Your task to perform on an android device: Go to Yahoo.com Image 0: 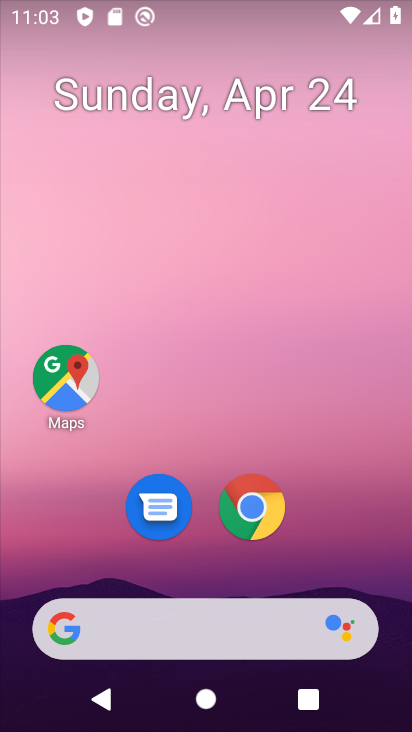
Step 0: click (252, 508)
Your task to perform on an android device: Go to Yahoo.com Image 1: 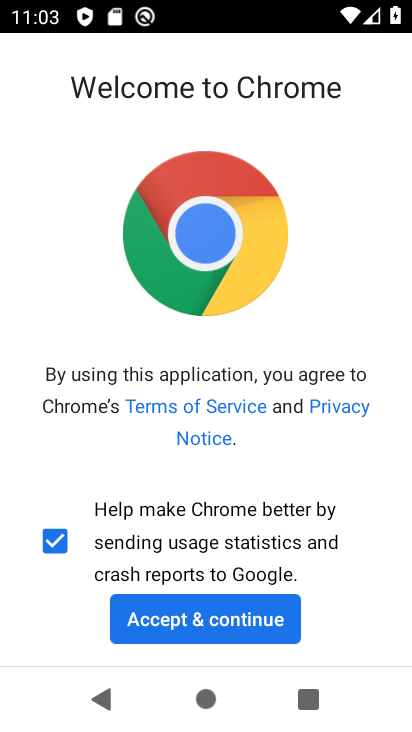
Step 1: click (224, 625)
Your task to perform on an android device: Go to Yahoo.com Image 2: 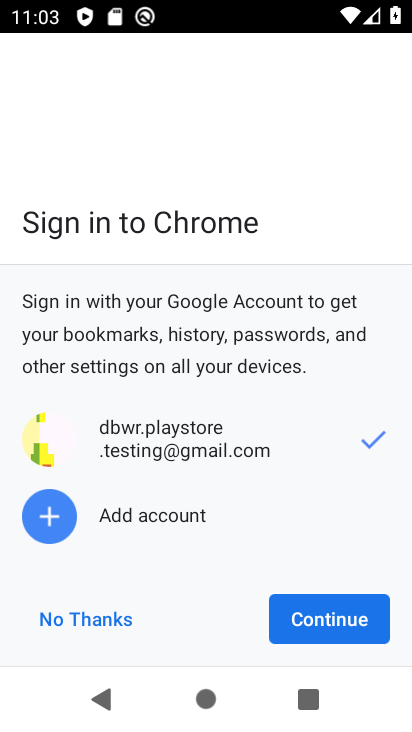
Step 2: click (331, 622)
Your task to perform on an android device: Go to Yahoo.com Image 3: 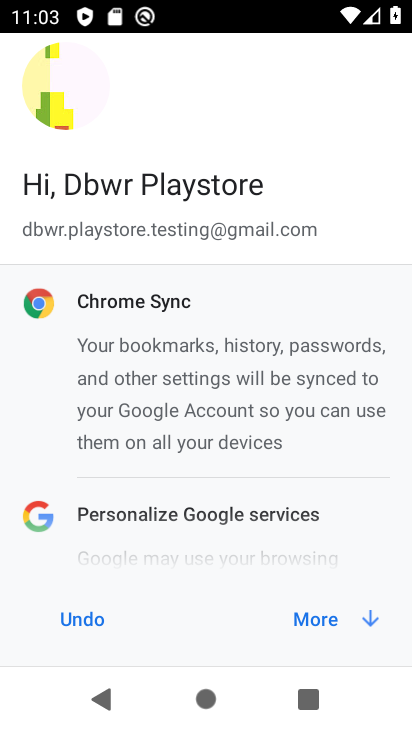
Step 3: click (331, 622)
Your task to perform on an android device: Go to Yahoo.com Image 4: 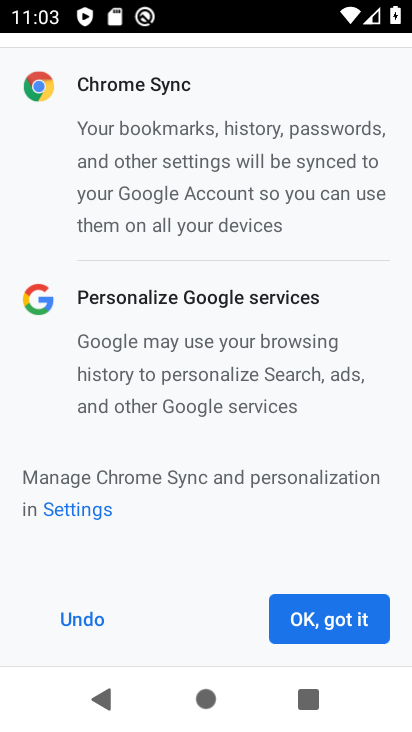
Step 4: click (331, 622)
Your task to perform on an android device: Go to Yahoo.com Image 5: 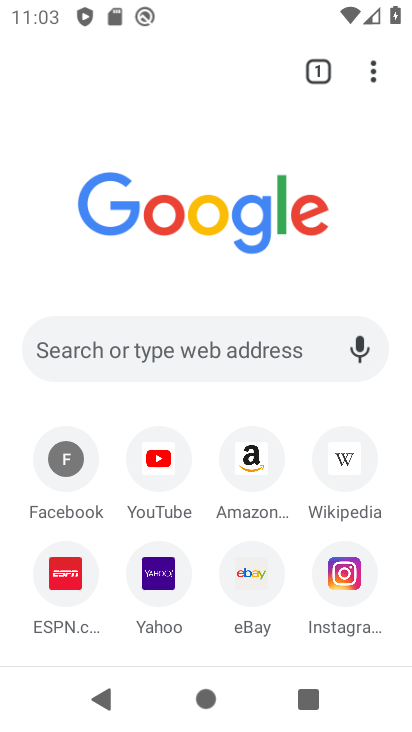
Step 5: click (225, 350)
Your task to perform on an android device: Go to Yahoo.com Image 6: 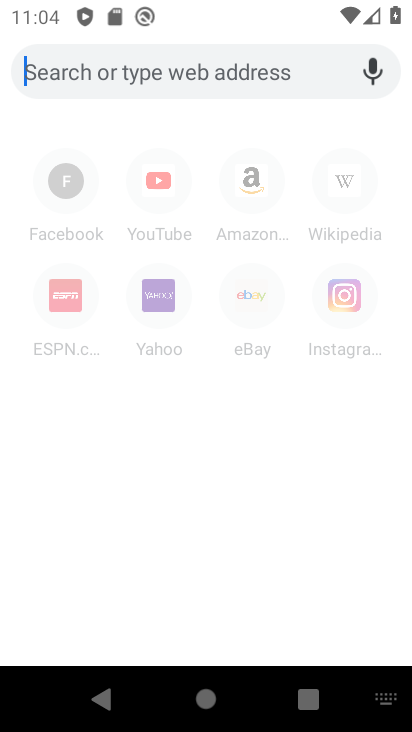
Step 6: type "Yahoo.com"
Your task to perform on an android device: Go to Yahoo.com Image 7: 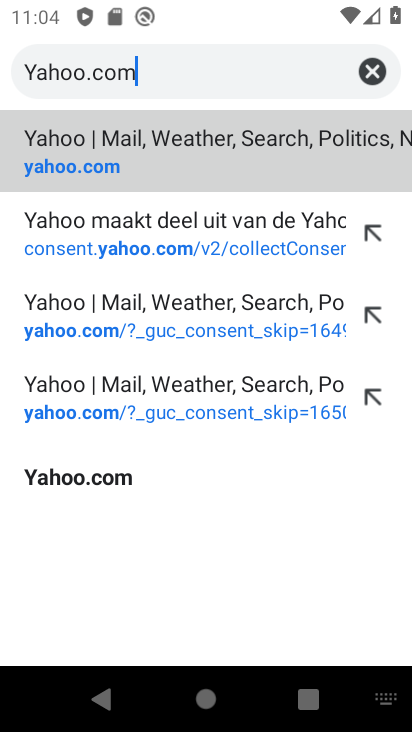
Step 7: click (126, 130)
Your task to perform on an android device: Go to Yahoo.com Image 8: 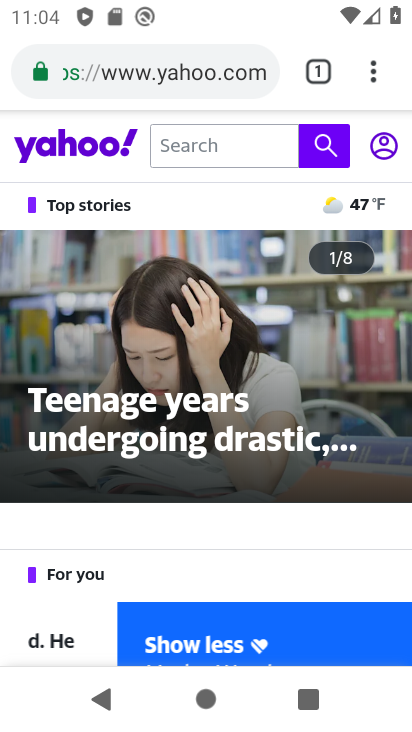
Step 8: task complete